Your task to perform on an android device: open the mobile data screen to see how much data has been used Image 0: 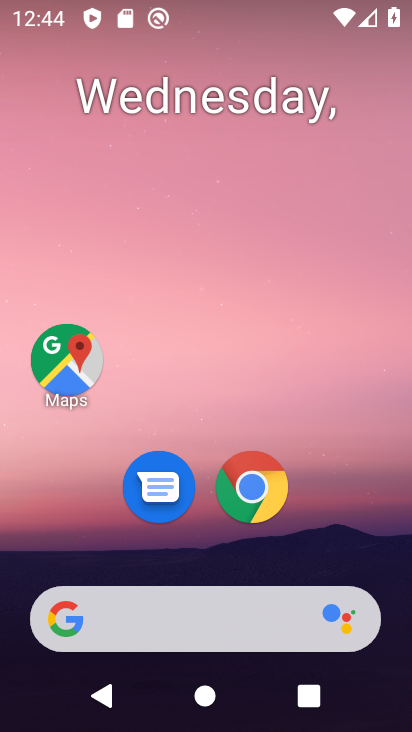
Step 0: drag from (371, 545) to (372, 124)
Your task to perform on an android device: open the mobile data screen to see how much data has been used Image 1: 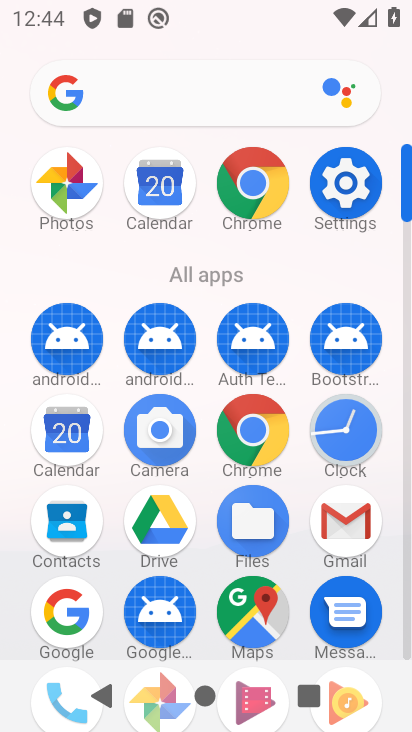
Step 1: click (362, 204)
Your task to perform on an android device: open the mobile data screen to see how much data has been used Image 2: 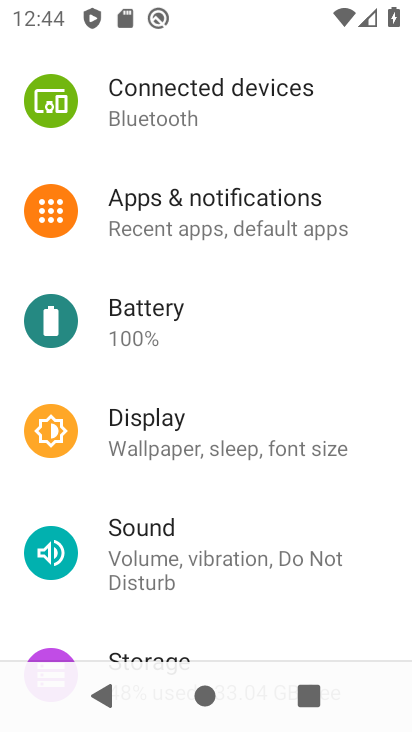
Step 2: click (357, 339)
Your task to perform on an android device: open the mobile data screen to see how much data has been used Image 3: 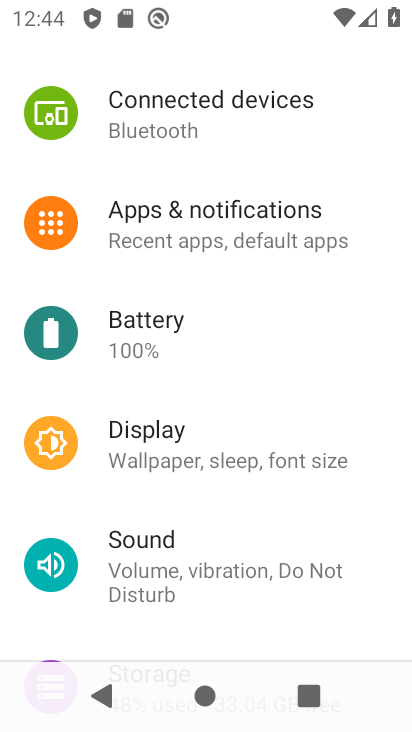
Step 3: drag from (375, 223) to (378, 309)
Your task to perform on an android device: open the mobile data screen to see how much data has been used Image 4: 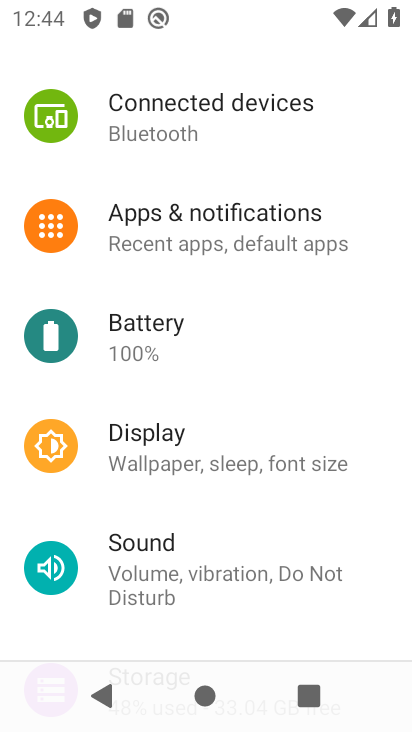
Step 4: drag from (363, 165) to (374, 342)
Your task to perform on an android device: open the mobile data screen to see how much data has been used Image 5: 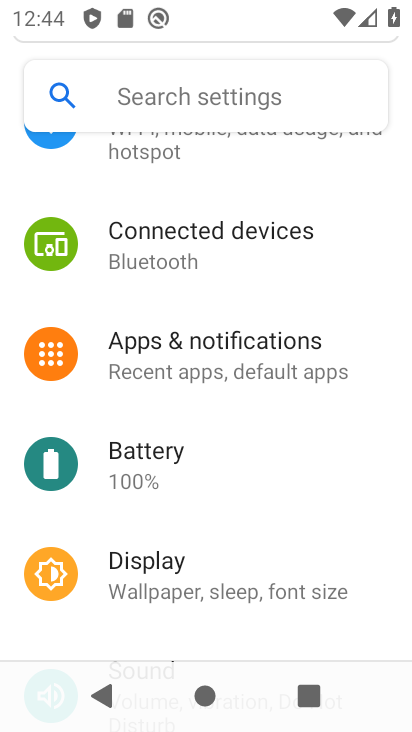
Step 5: drag from (361, 230) to (369, 382)
Your task to perform on an android device: open the mobile data screen to see how much data has been used Image 6: 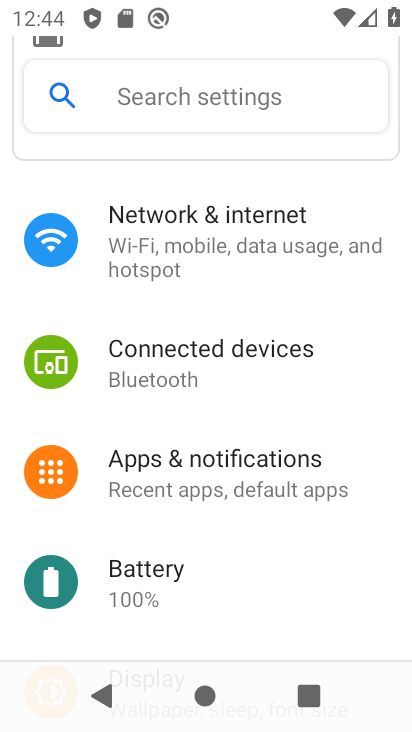
Step 6: drag from (361, 300) to (356, 420)
Your task to perform on an android device: open the mobile data screen to see how much data has been used Image 7: 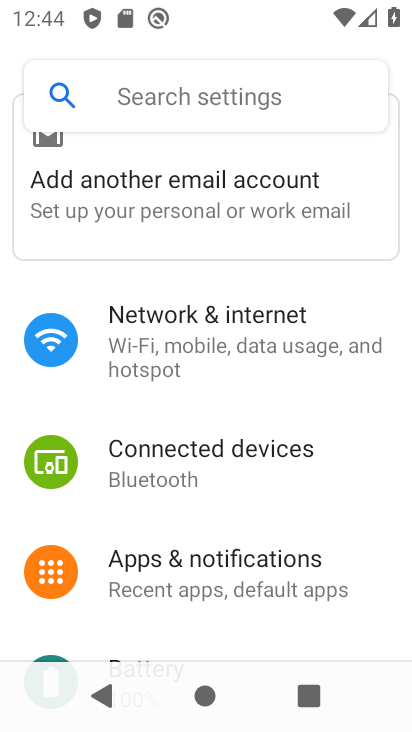
Step 7: click (311, 367)
Your task to perform on an android device: open the mobile data screen to see how much data has been used Image 8: 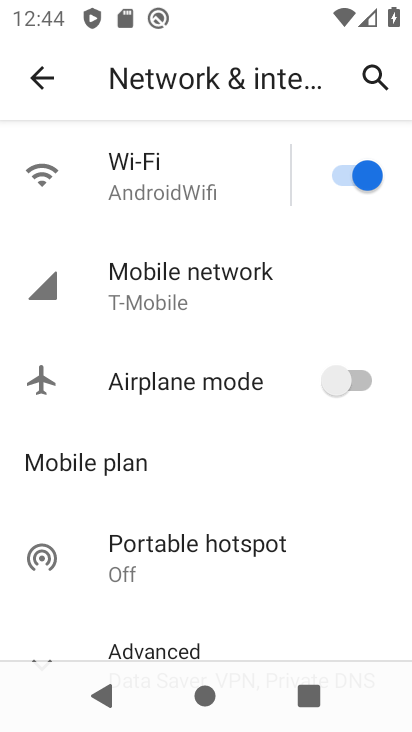
Step 8: click (218, 291)
Your task to perform on an android device: open the mobile data screen to see how much data has been used Image 9: 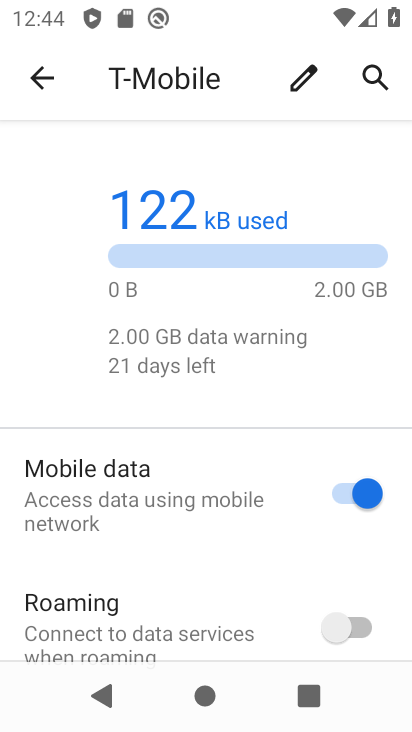
Step 9: drag from (257, 521) to (269, 415)
Your task to perform on an android device: open the mobile data screen to see how much data has been used Image 10: 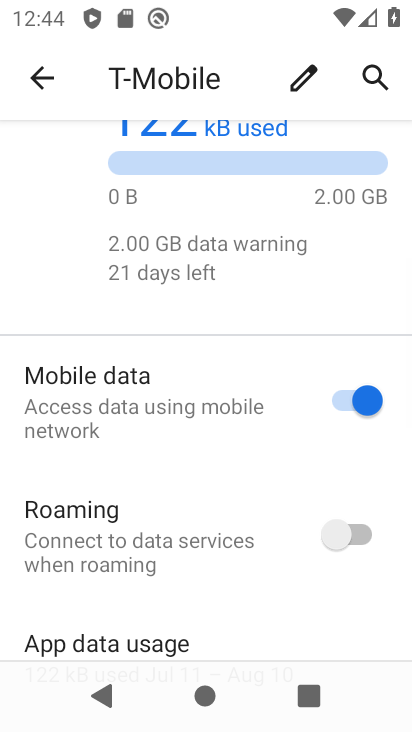
Step 10: drag from (262, 579) to (276, 450)
Your task to perform on an android device: open the mobile data screen to see how much data has been used Image 11: 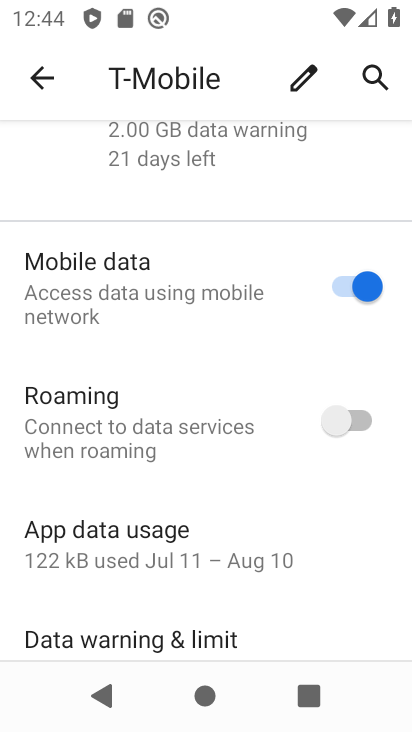
Step 11: drag from (266, 591) to (269, 459)
Your task to perform on an android device: open the mobile data screen to see how much data has been used Image 12: 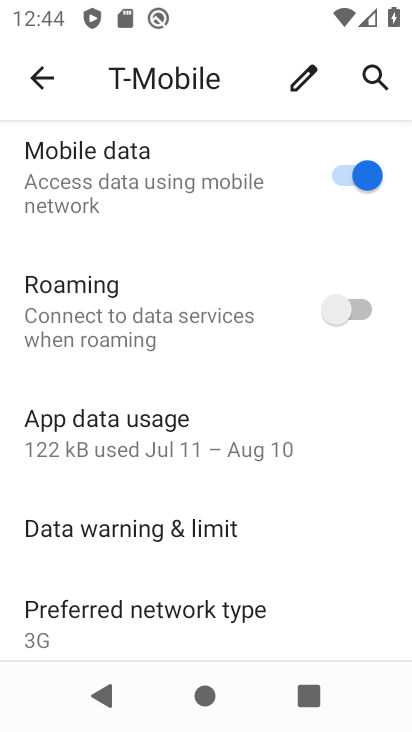
Step 12: click (210, 443)
Your task to perform on an android device: open the mobile data screen to see how much data has been used Image 13: 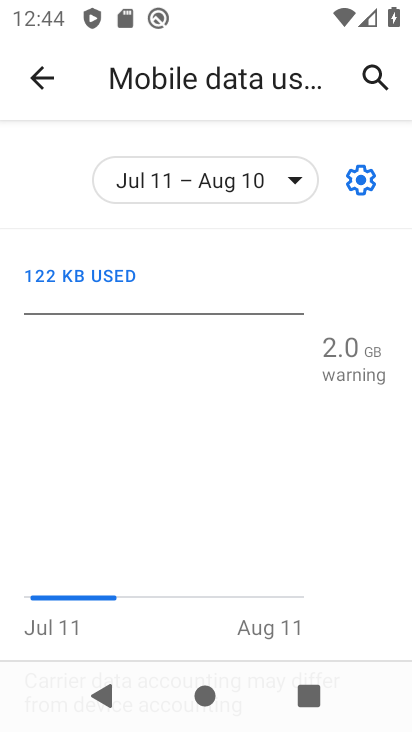
Step 13: task complete